Your task to perform on an android device: Go to Amazon Image 0: 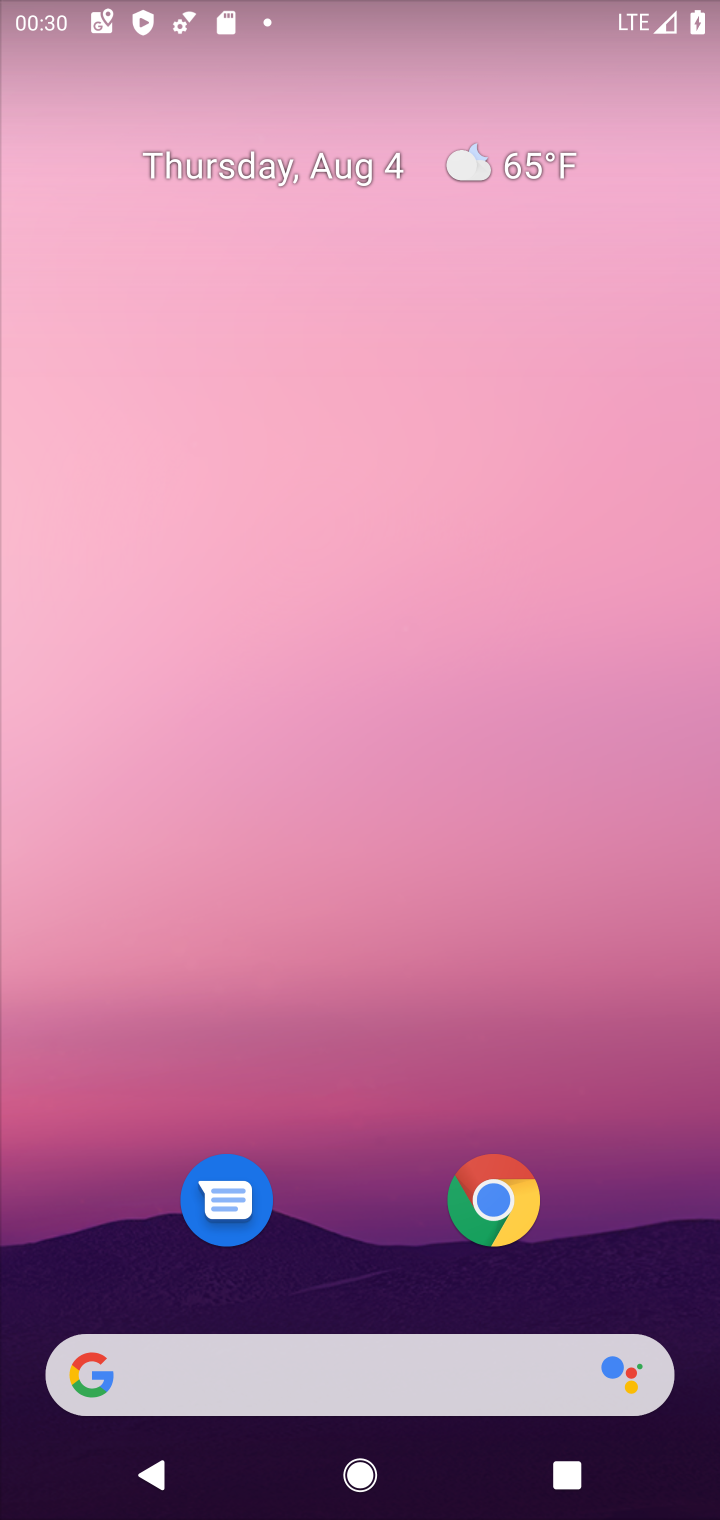
Step 0: press home button
Your task to perform on an android device: Go to Amazon Image 1: 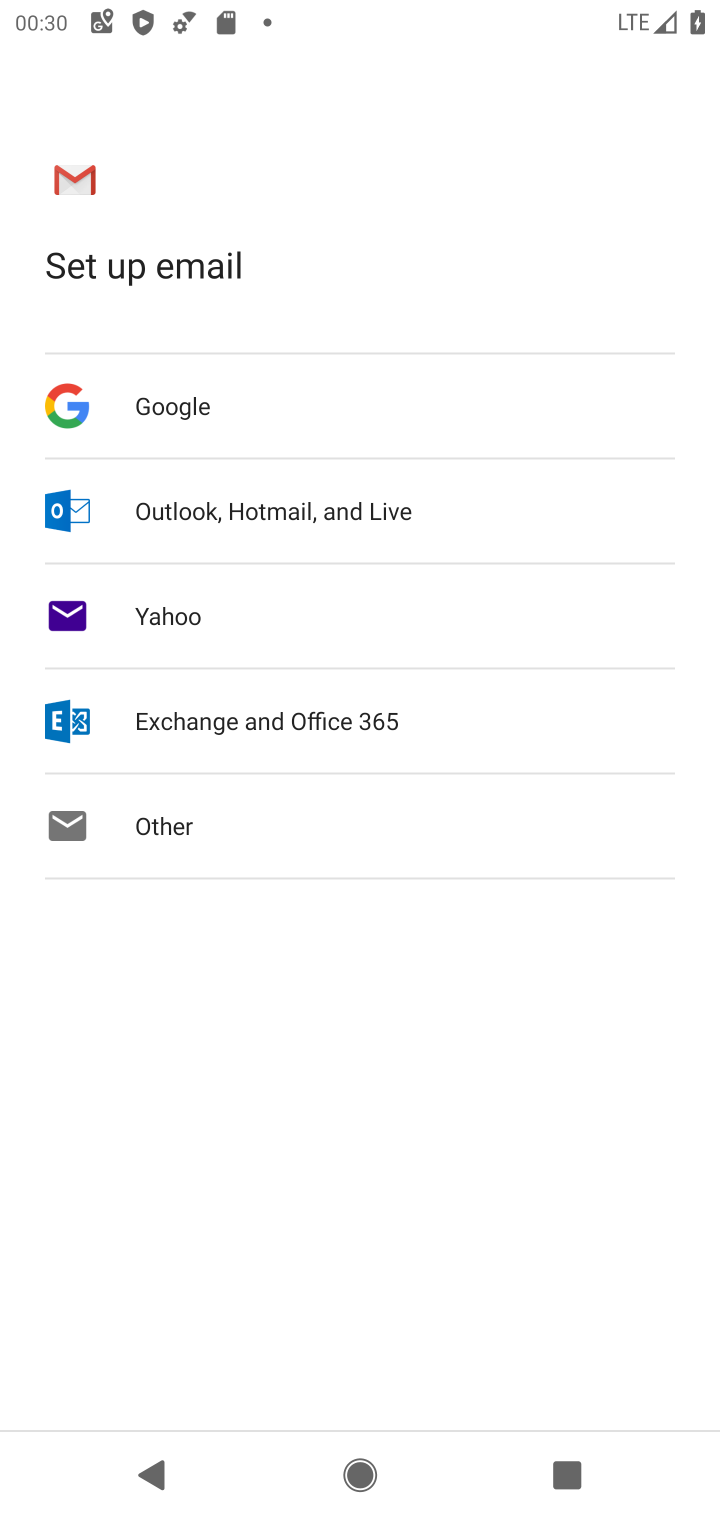
Step 1: press home button
Your task to perform on an android device: Go to Amazon Image 2: 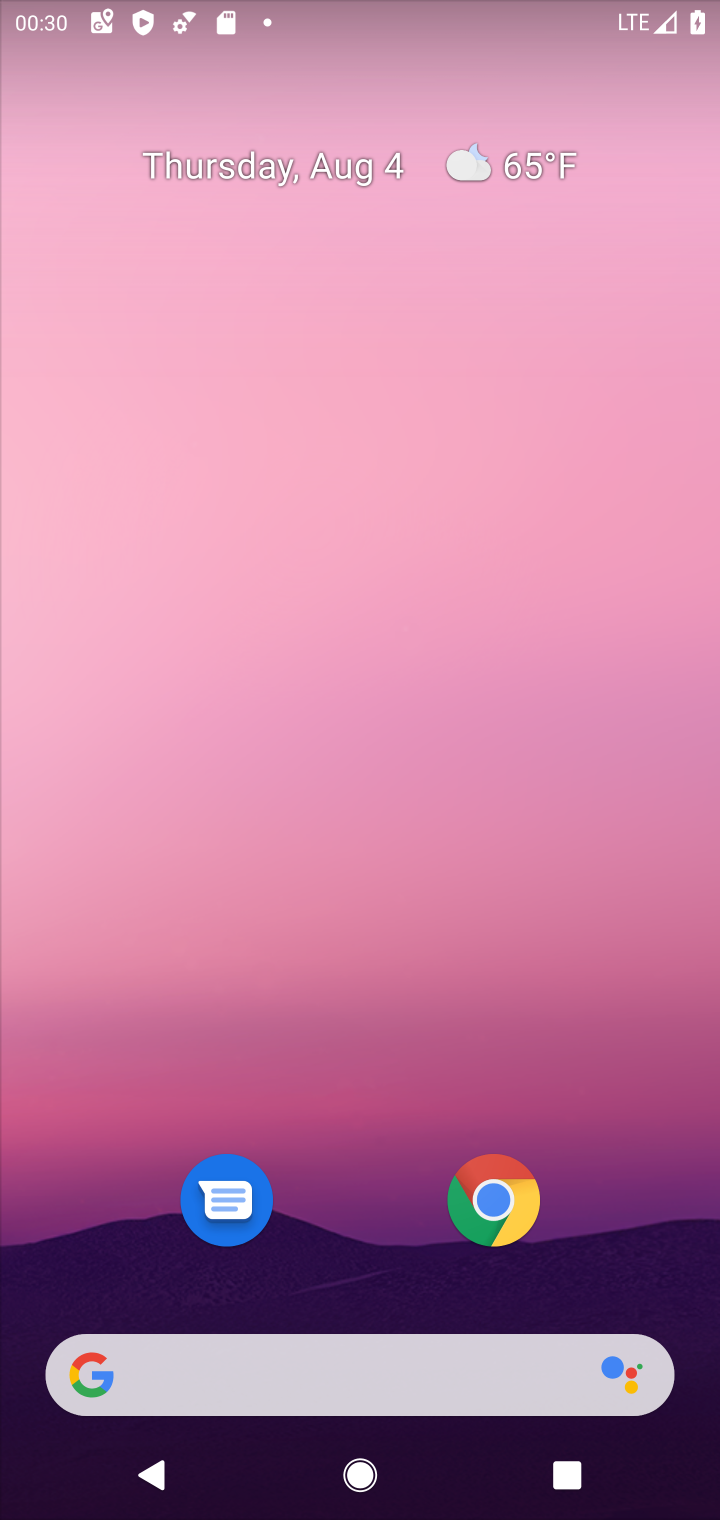
Step 2: press home button
Your task to perform on an android device: Go to Amazon Image 3: 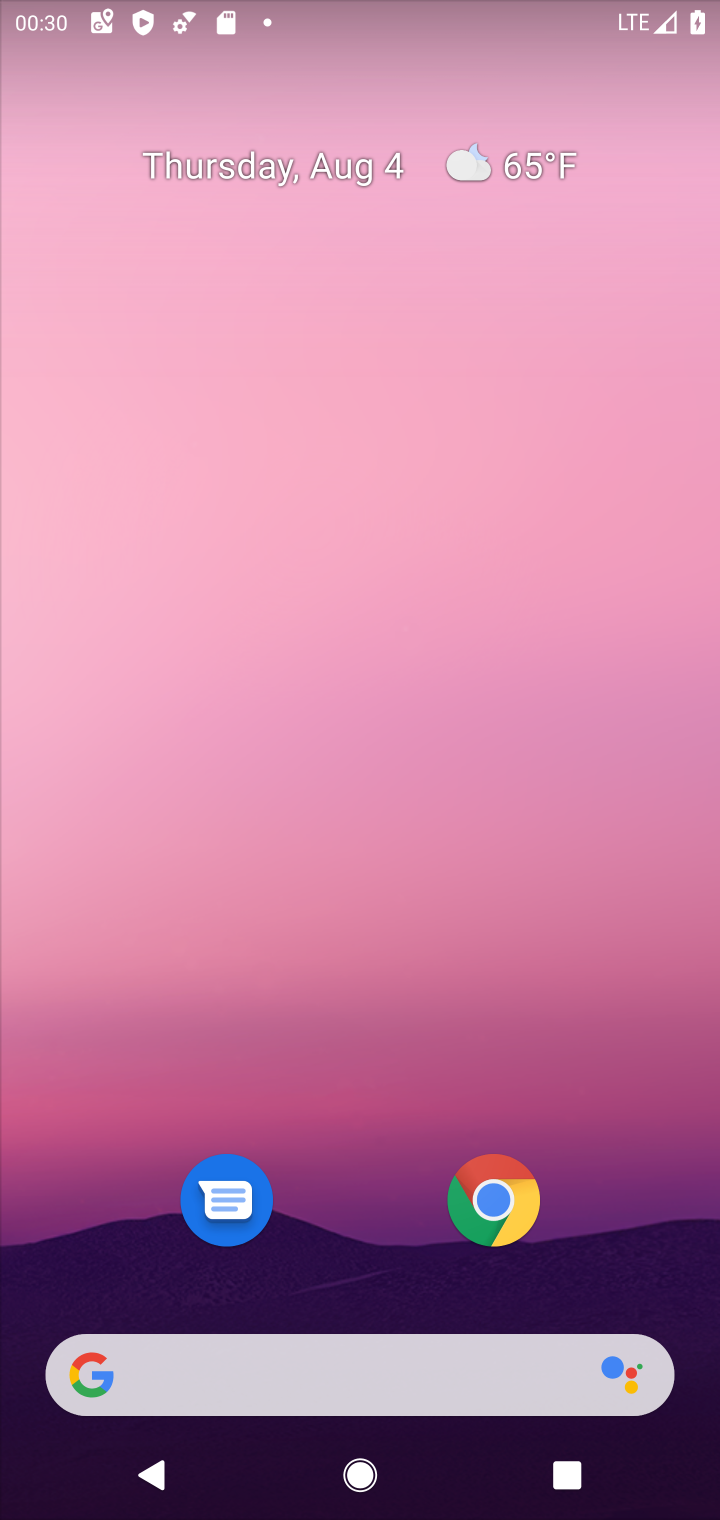
Step 3: press home button
Your task to perform on an android device: Go to Amazon Image 4: 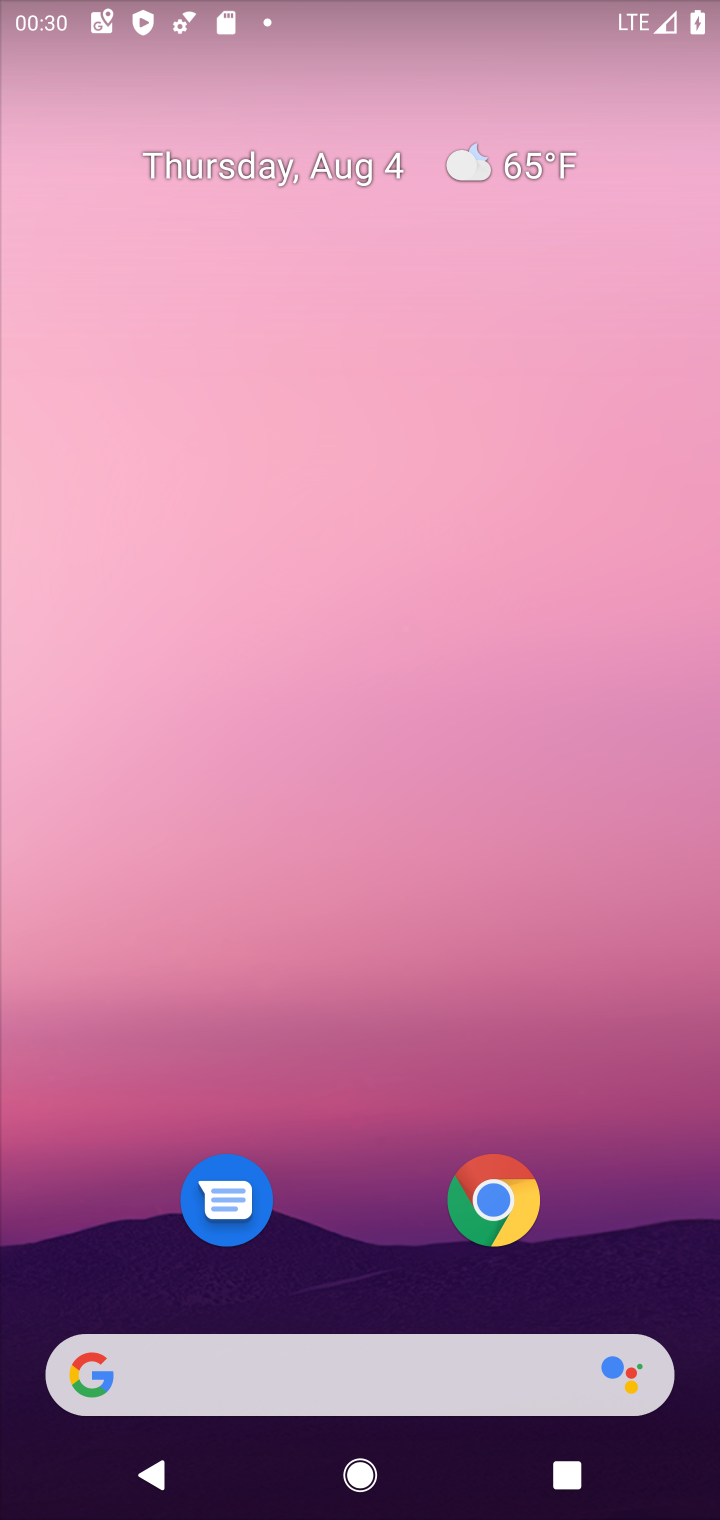
Step 4: click (479, 1199)
Your task to perform on an android device: Go to Amazon Image 5: 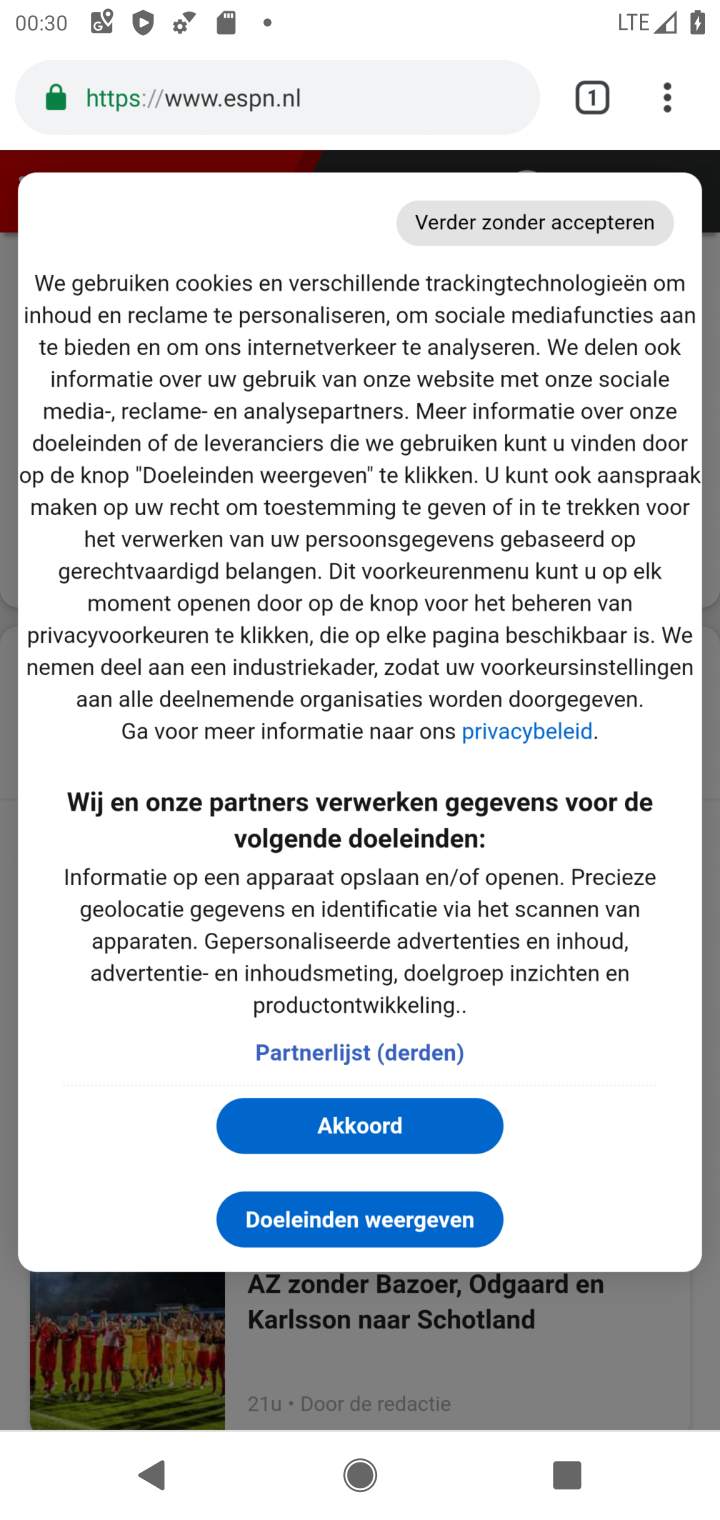
Step 5: click (442, 104)
Your task to perform on an android device: Go to Amazon Image 6: 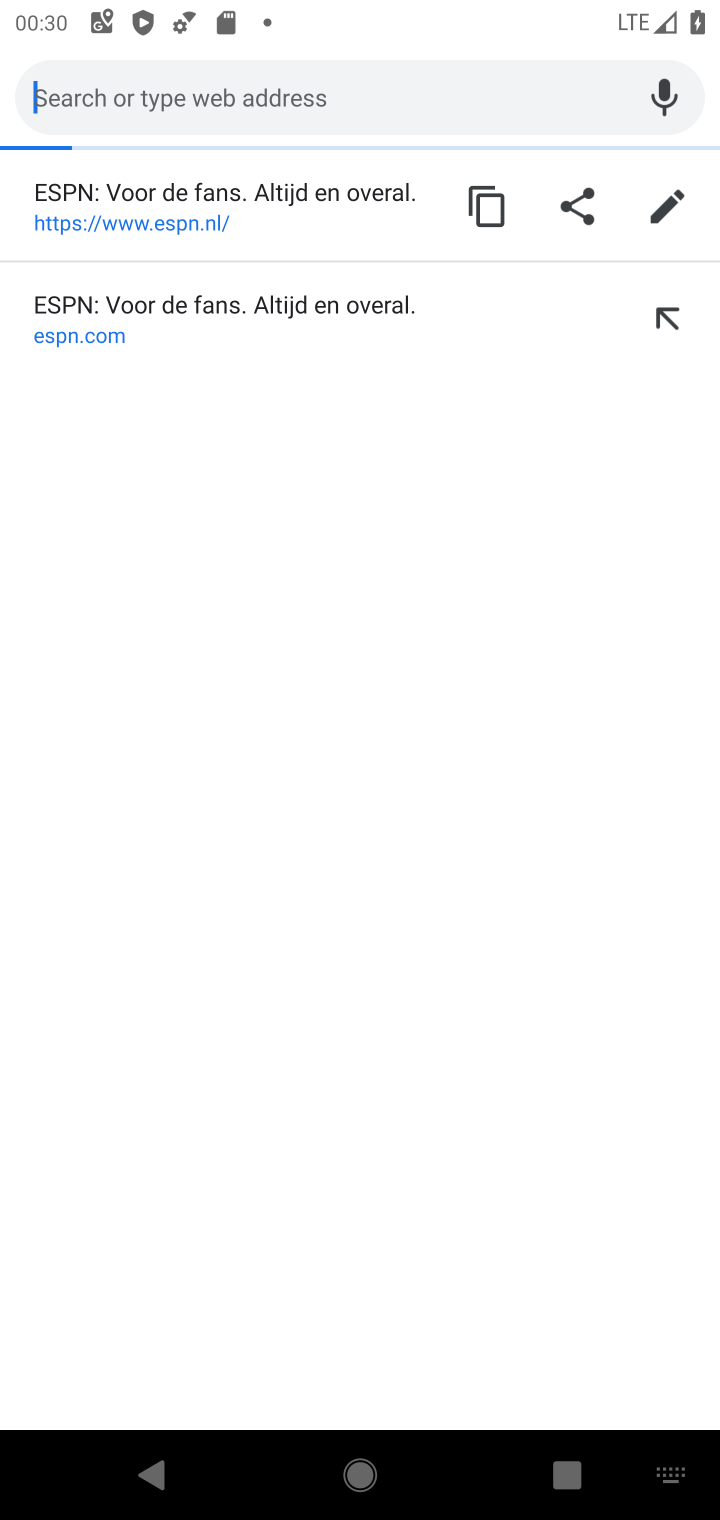
Step 6: type "Amazon"
Your task to perform on an android device: Go to Amazon Image 7: 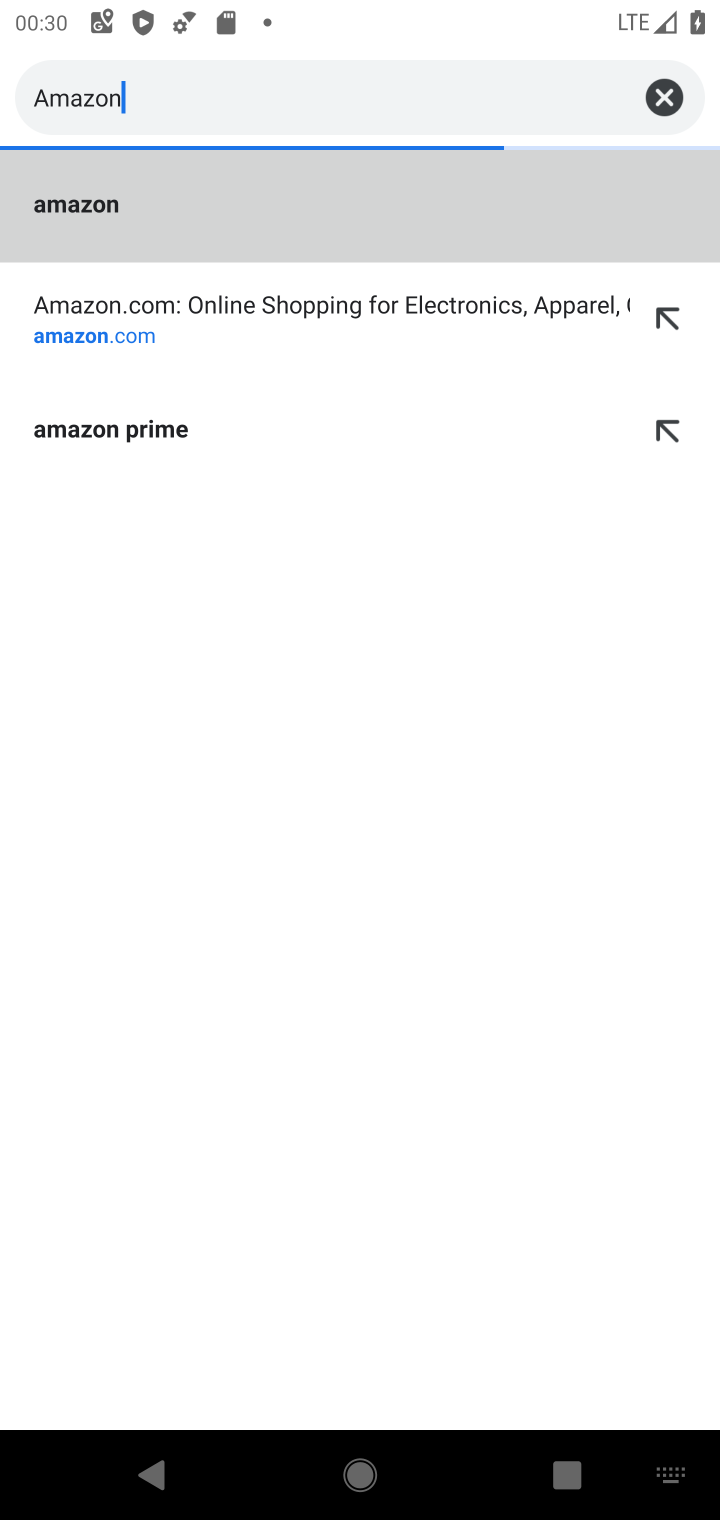
Step 7: type ""
Your task to perform on an android device: Go to Amazon Image 8: 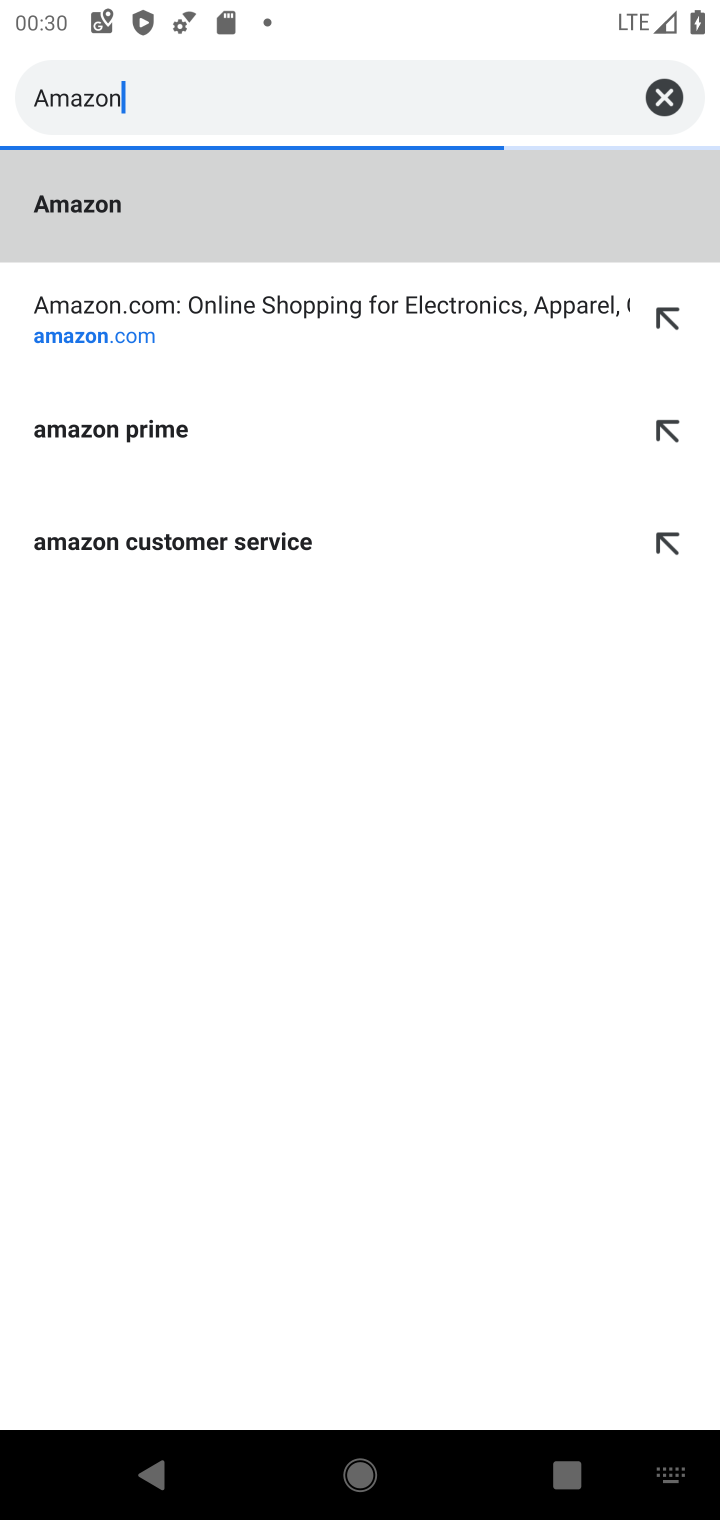
Step 8: click (281, 207)
Your task to perform on an android device: Go to Amazon Image 9: 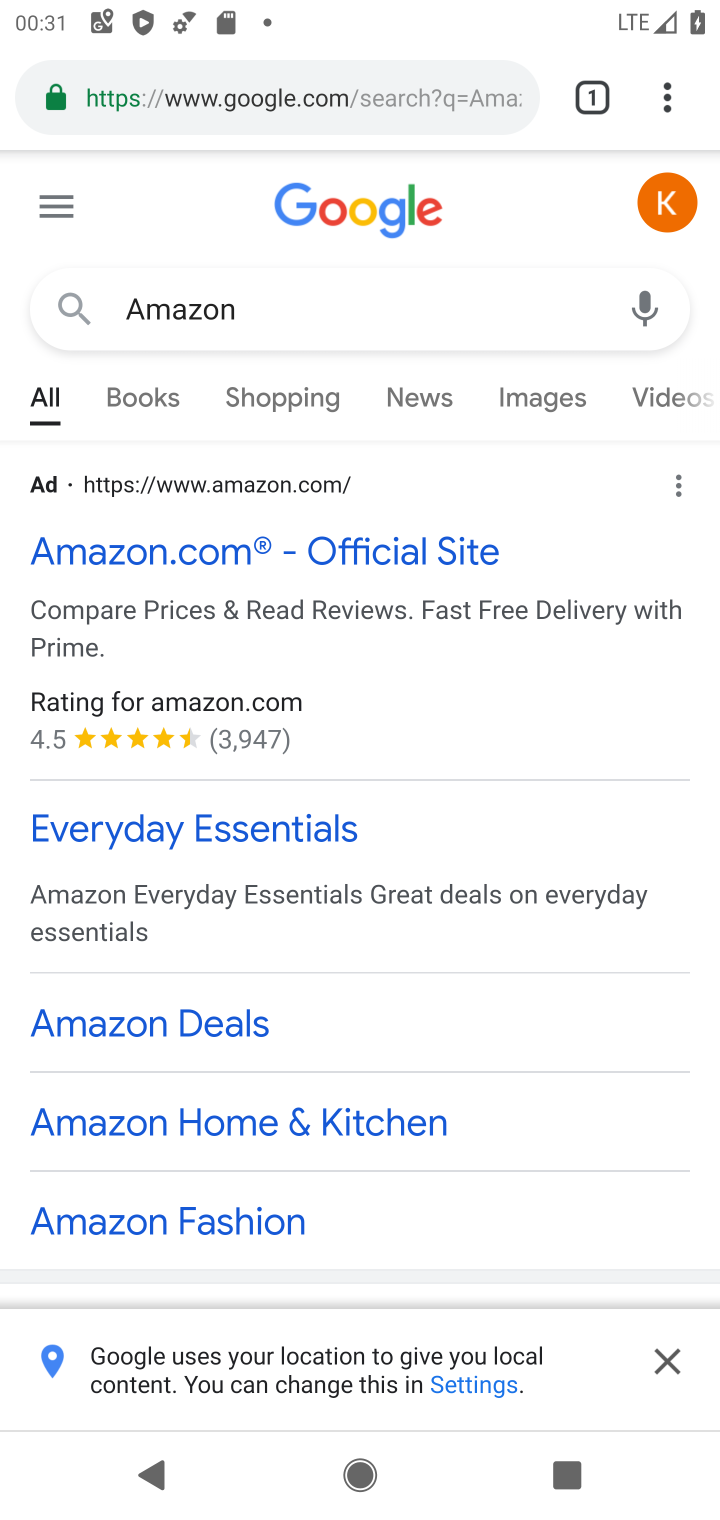
Step 9: click (236, 545)
Your task to perform on an android device: Go to Amazon Image 10: 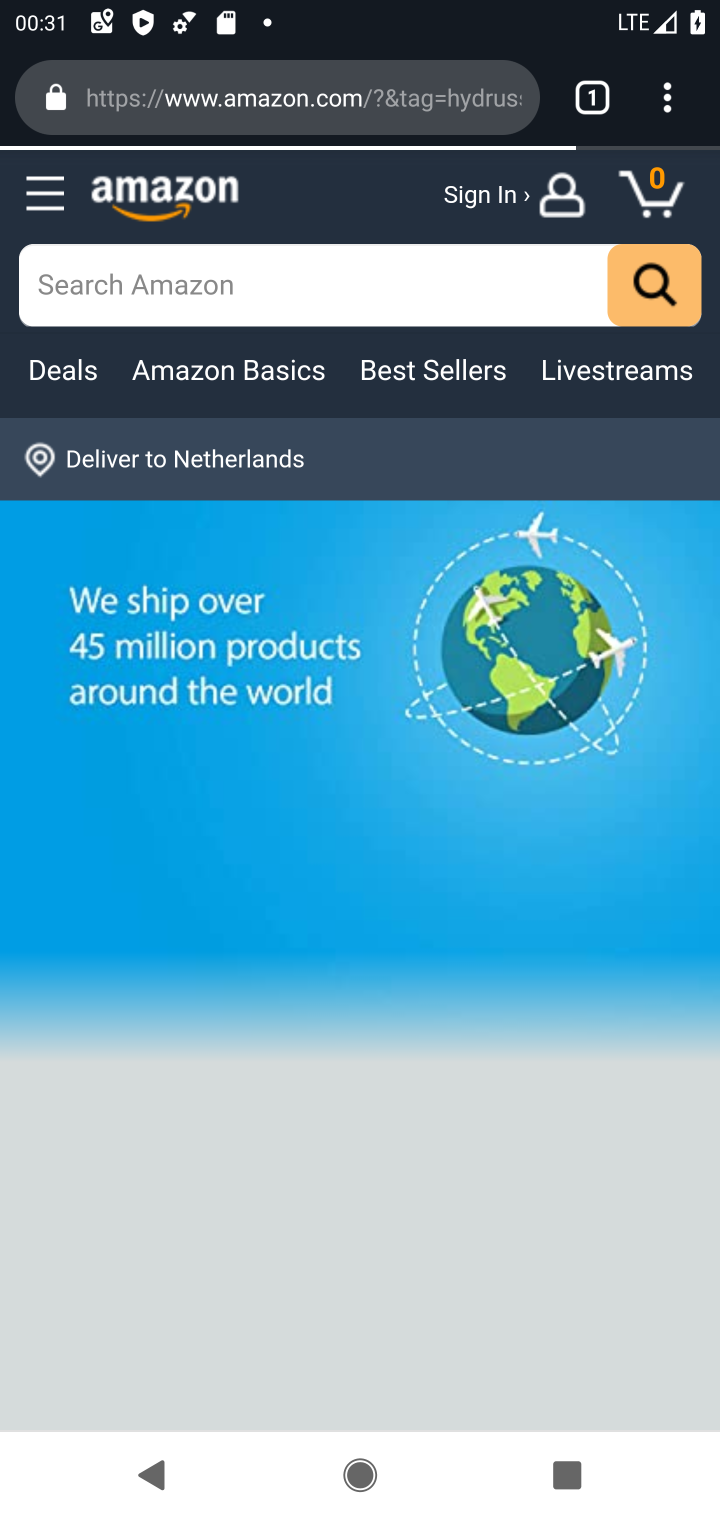
Step 10: task complete